Your task to perform on an android device: move a message to another label in the gmail app Image 0: 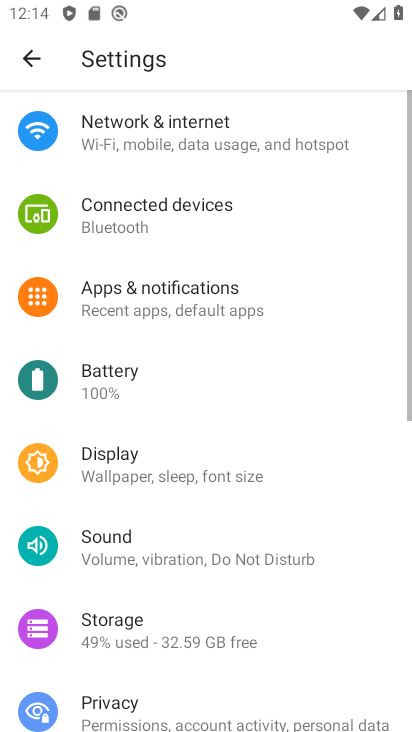
Step 0: press home button
Your task to perform on an android device: move a message to another label in the gmail app Image 1: 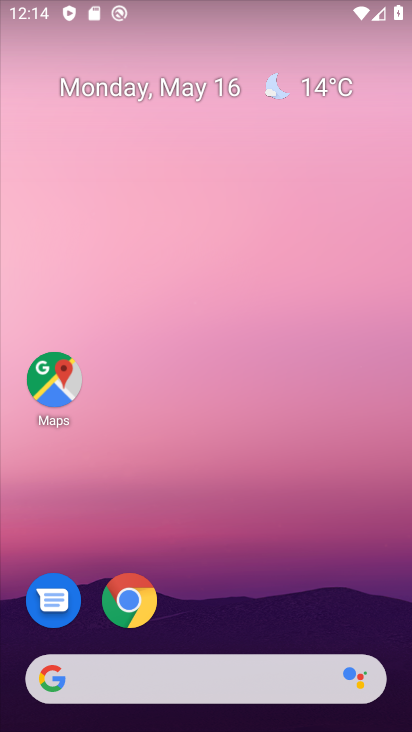
Step 1: drag from (211, 636) to (214, 54)
Your task to perform on an android device: move a message to another label in the gmail app Image 2: 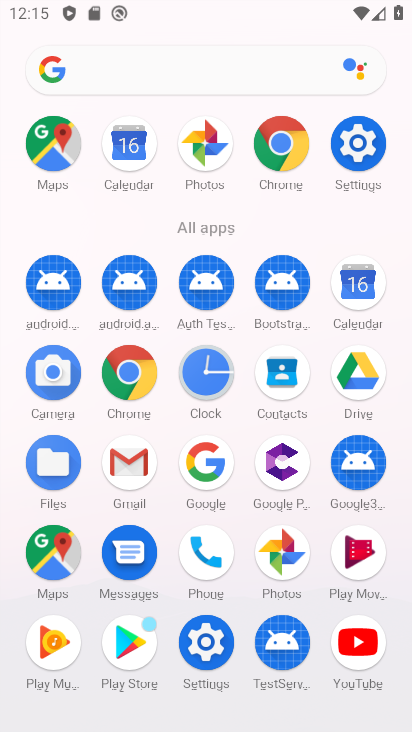
Step 2: click (128, 455)
Your task to perform on an android device: move a message to another label in the gmail app Image 3: 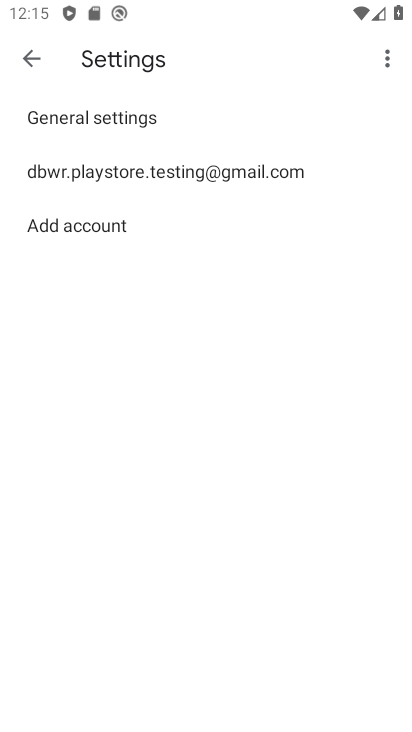
Step 3: click (39, 59)
Your task to perform on an android device: move a message to another label in the gmail app Image 4: 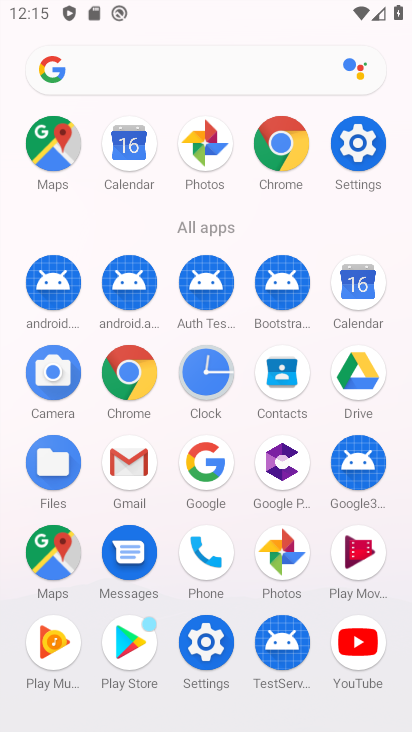
Step 4: click (129, 455)
Your task to perform on an android device: move a message to another label in the gmail app Image 5: 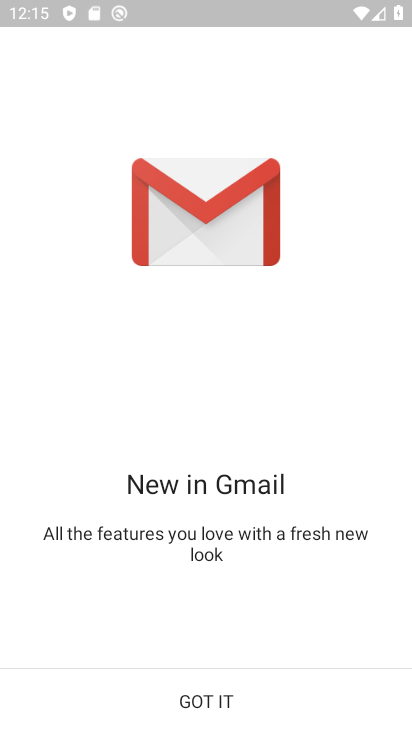
Step 5: click (233, 712)
Your task to perform on an android device: move a message to another label in the gmail app Image 6: 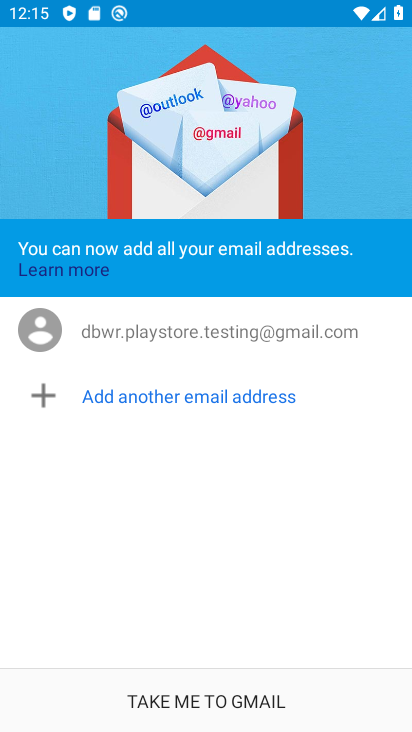
Step 6: click (210, 712)
Your task to perform on an android device: move a message to another label in the gmail app Image 7: 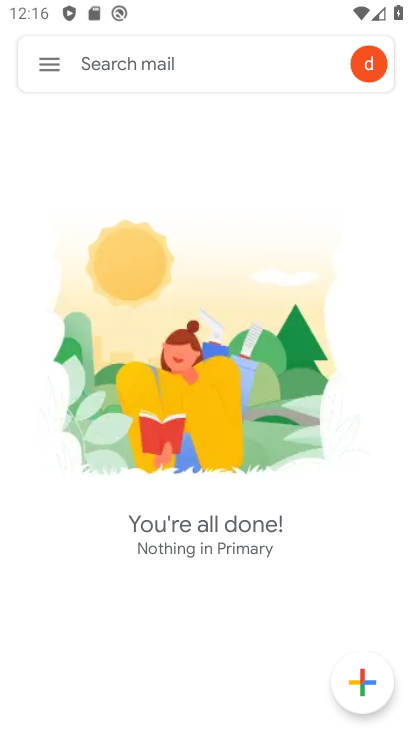
Step 7: task complete